Your task to perform on an android device: Open Yahoo.com Image 0: 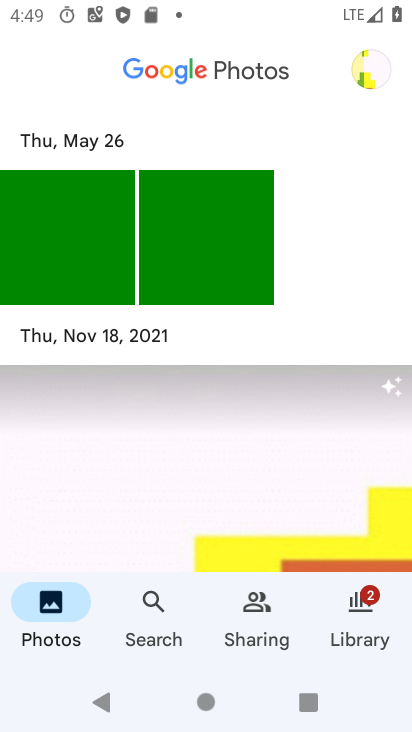
Step 0: press home button
Your task to perform on an android device: Open Yahoo.com Image 1: 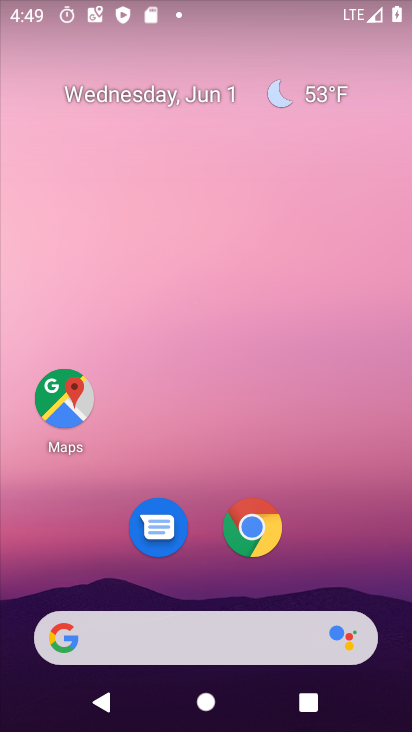
Step 1: drag from (332, 530) to (378, 61)
Your task to perform on an android device: Open Yahoo.com Image 2: 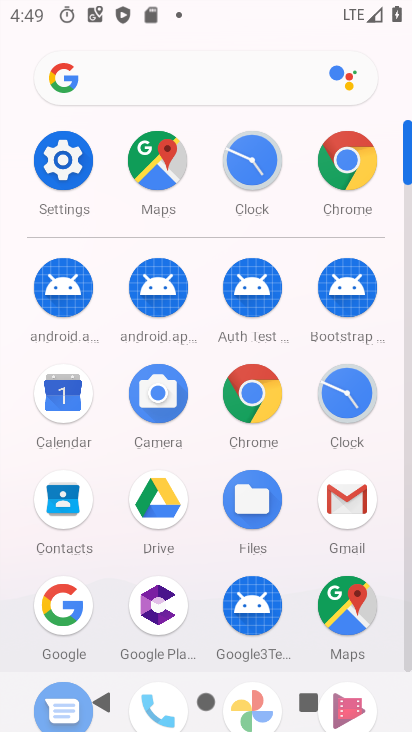
Step 2: click (255, 394)
Your task to perform on an android device: Open Yahoo.com Image 3: 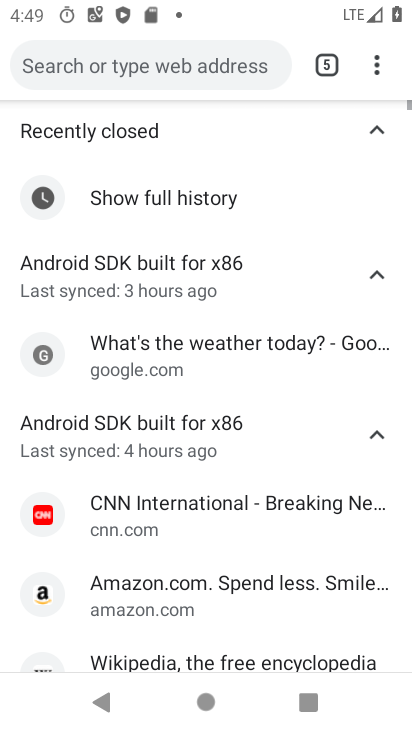
Step 3: click (139, 56)
Your task to perform on an android device: Open Yahoo.com Image 4: 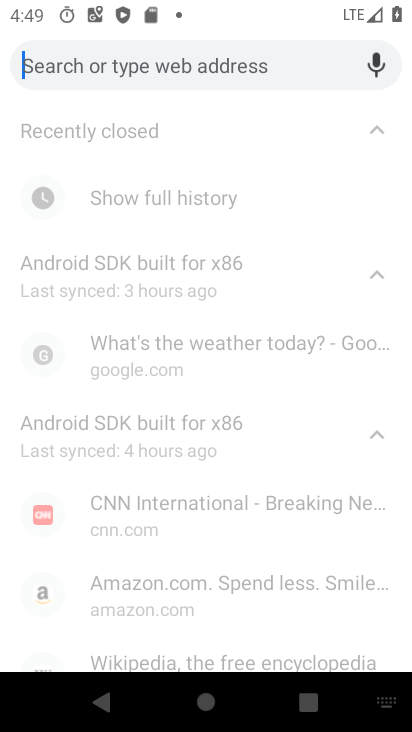
Step 4: type "Yahoo.com"
Your task to perform on an android device: Open Yahoo.com Image 5: 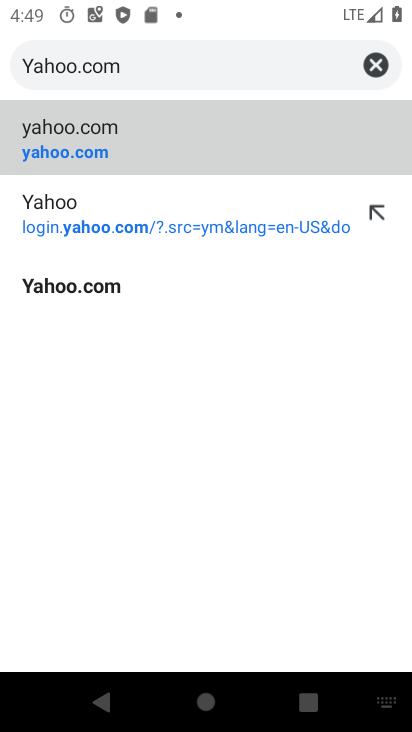
Step 5: click (49, 152)
Your task to perform on an android device: Open Yahoo.com Image 6: 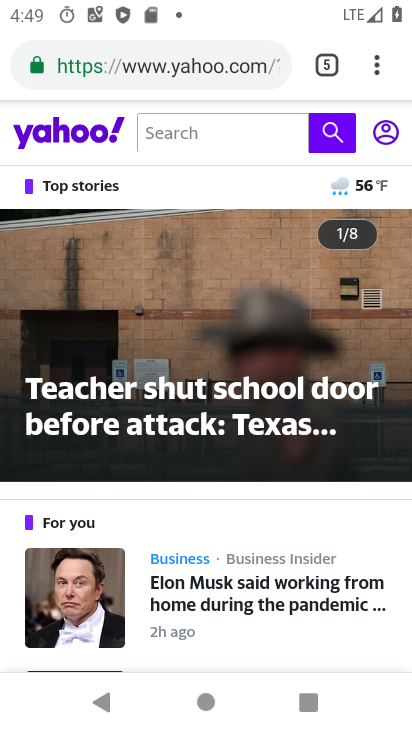
Step 6: task complete